Your task to perform on an android device: Do I have any events today? Image 0: 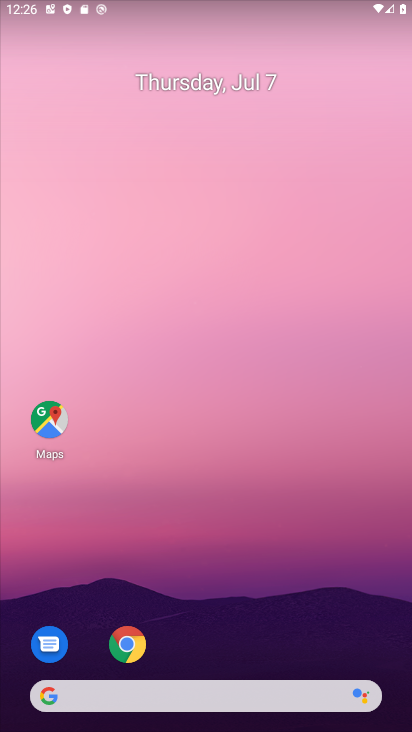
Step 0: drag from (259, 597) to (280, 136)
Your task to perform on an android device: Do I have any events today? Image 1: 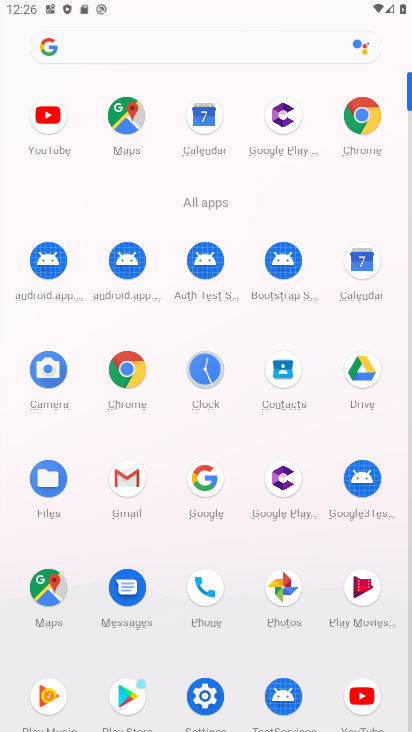
Step 1: click (209, 108)
Your task to perform on an android device: Do I have any events today? Image 2: 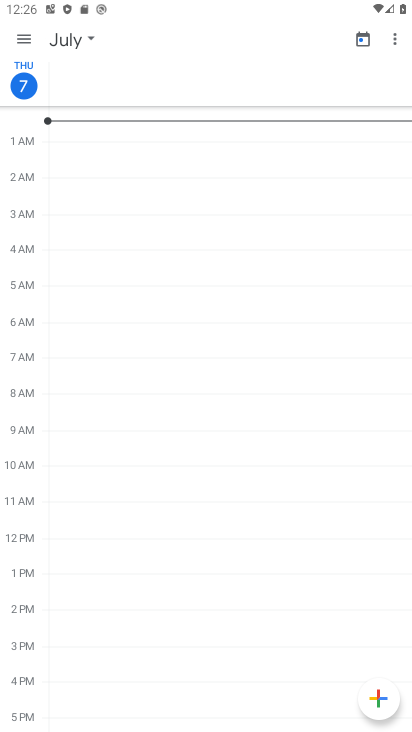
Step 2: click (13, 39)
Your task to perform on an android device: Do I have any events today? Image 3: 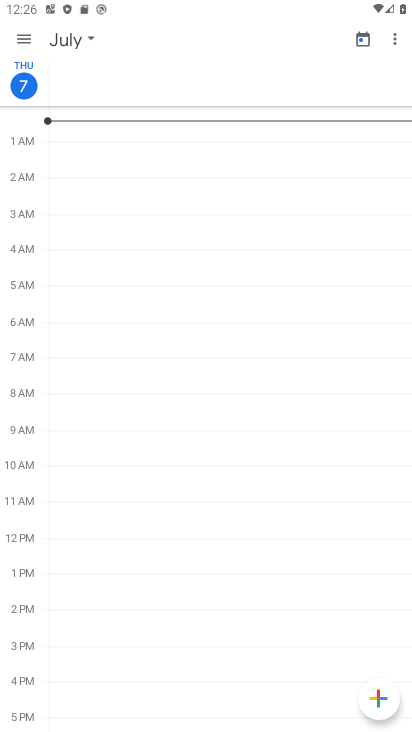
Step 3: click (74, 37)
Your task to perform on an android device: Do I have any events today? Image 4: 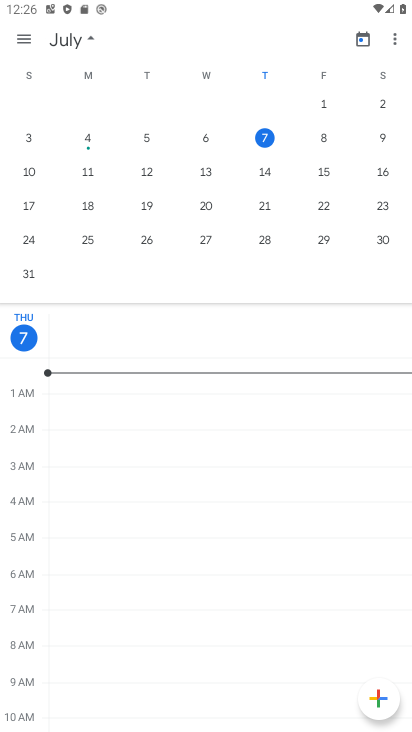
Step 4: click (265, 134)
Your task to perform on an android device: Do I have any events today? Image 5: 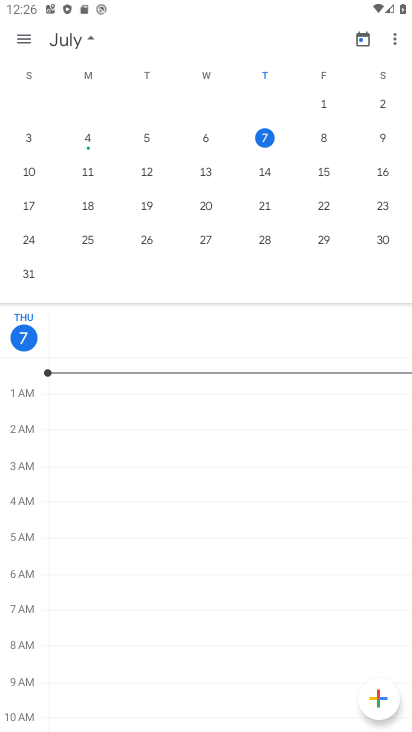
Step 5: task complete